Your task to perform on an android device: change keyboard looks Image 0: 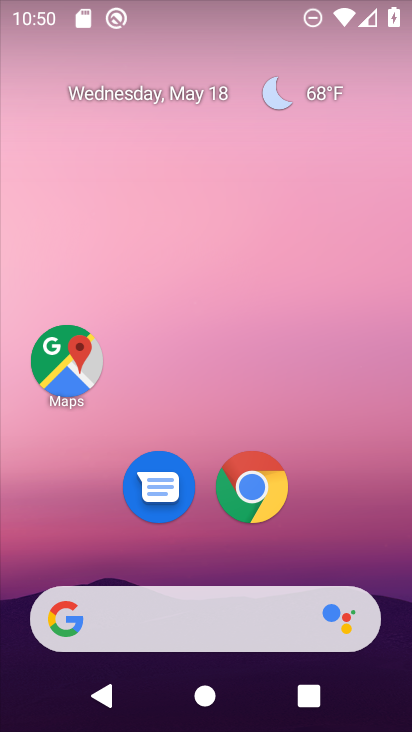
Step 0: drag from (349, 496) to (348, 198)
Your task to perform on an android device: change keyboard looks Image 1: 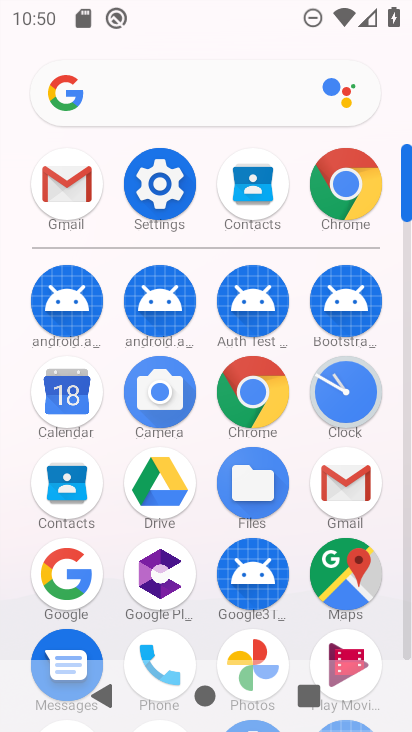
Step 1: click (164, 196)
Your task to perform on an android device: change keyboard looks Image 2: 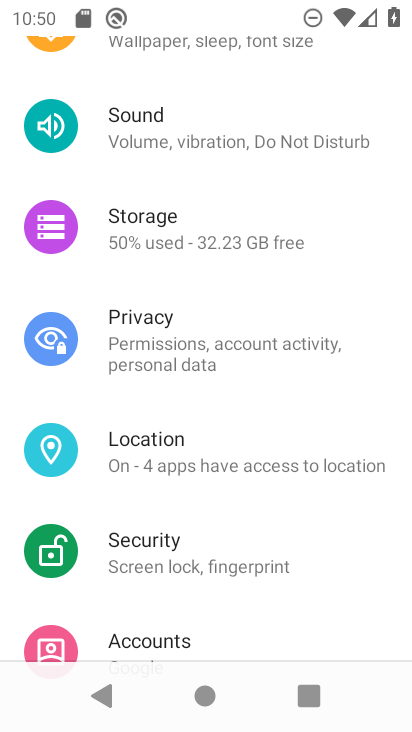
Step 2: drag from (250, 565) to (284, 307)
Your task to perform on an android device: change keyboard looks Image 3: 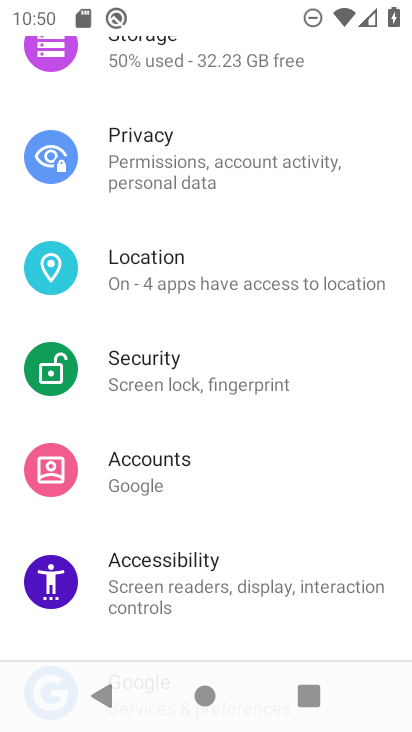
Step 3: drag from (254, 599) to (264, 175)
Your task to perform on an android device: change keyboard looks Image 4: 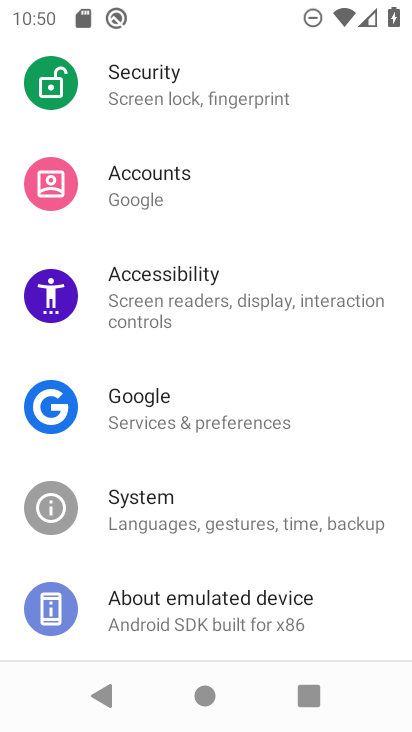
Step 4: drag from (244, 543) to (248, 255)
Your task to perform on an android device: change keyboard looks Image 5: 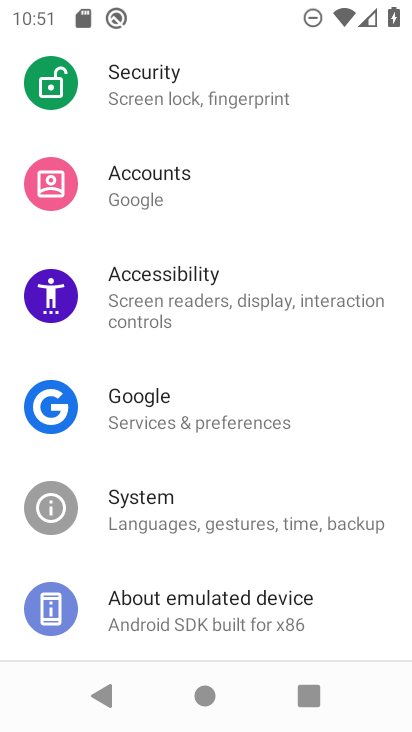
Step 5: click (227, 524)
Your task to perform on an android device: change keyboard looks Image 6: 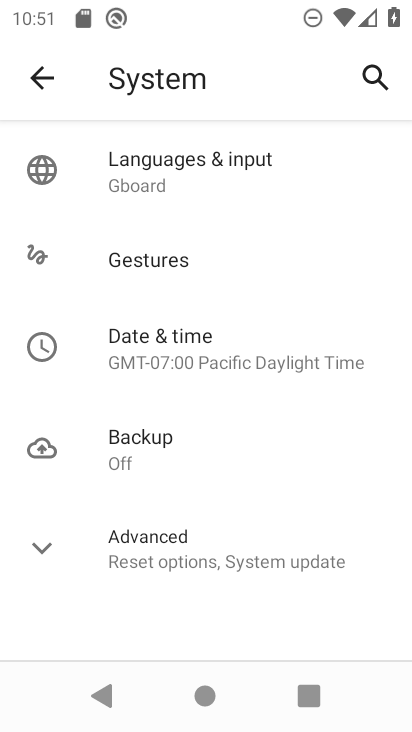
Step 6: click (229, 169)
Your task to perform on an android device: change keyboard looks Image 7: 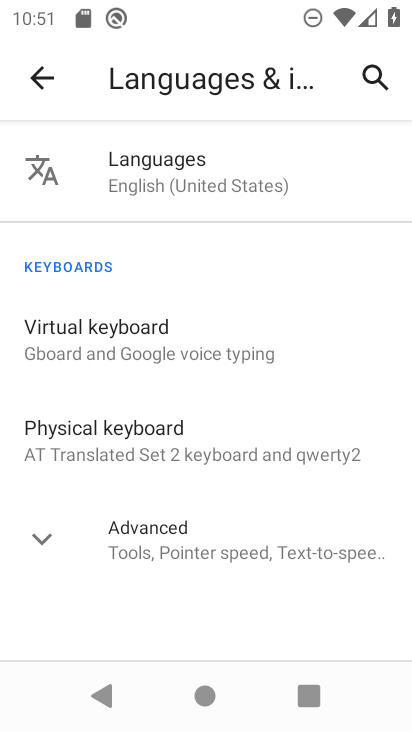
Step 7: click (207, 368)
Your task to perform on an android device: change keyboard looks Image 8: 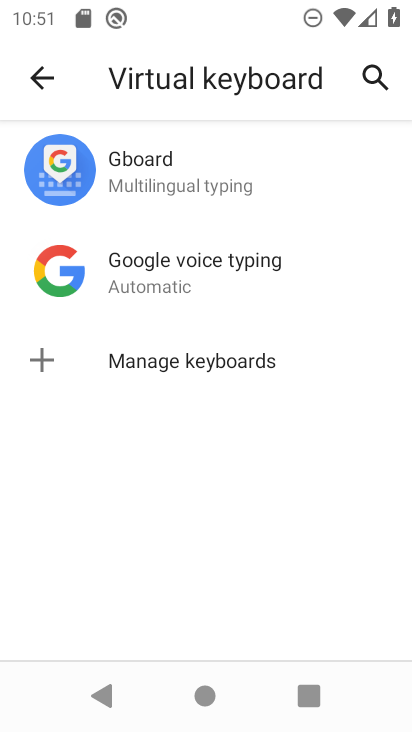
Step 8: click (162, 206)
Your task to perform on an android device: change keyboard looks Image 9: 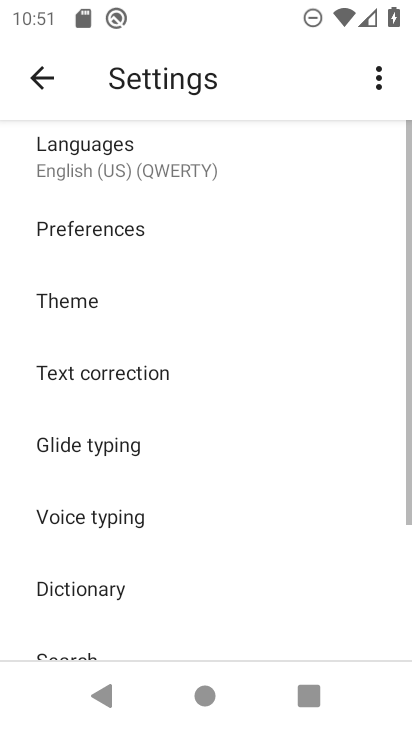
Step 9: click (108, 295)
Your task to perform on an android device: change keyboard looks Image 10: 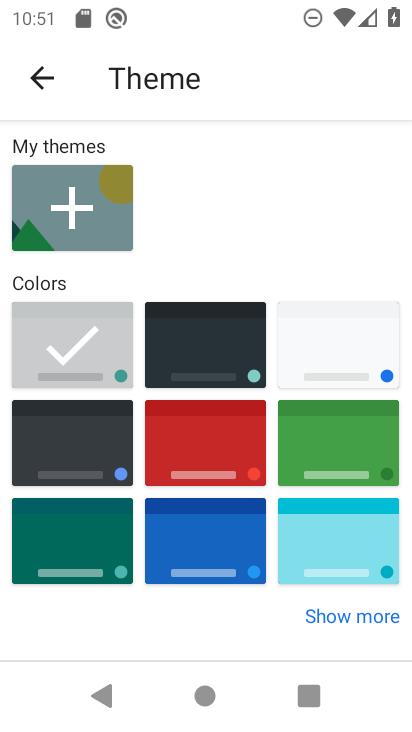
Step 10: click (214, 325)
Your task to perform on an android device: change keyboard looks Image 11: 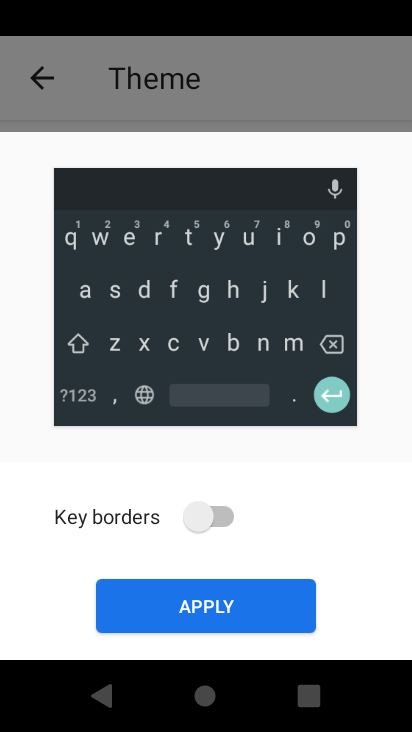
Step 11: click (250, 628)
Your task to perform on an android device: change keyboard looks Image 12: 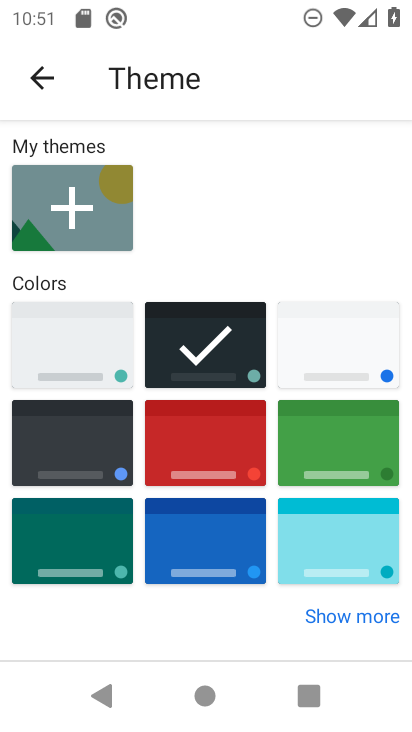
Step 12: task complete